Your task to perform on an android device: Open my contact list Image 0: 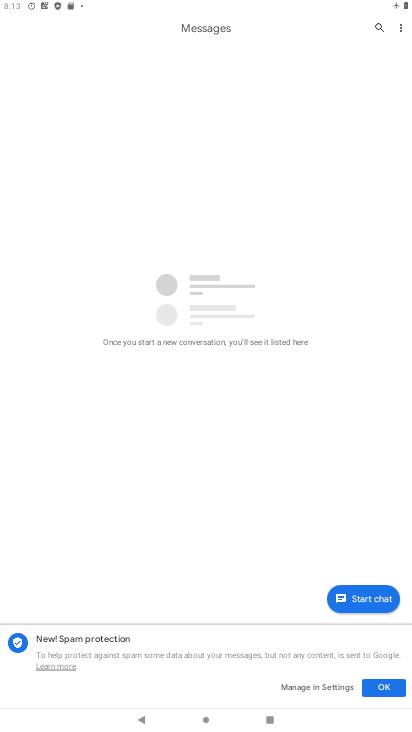
Step 0: click (275, 647)
Your task to perform on an android device: Open my contact list Image 1: 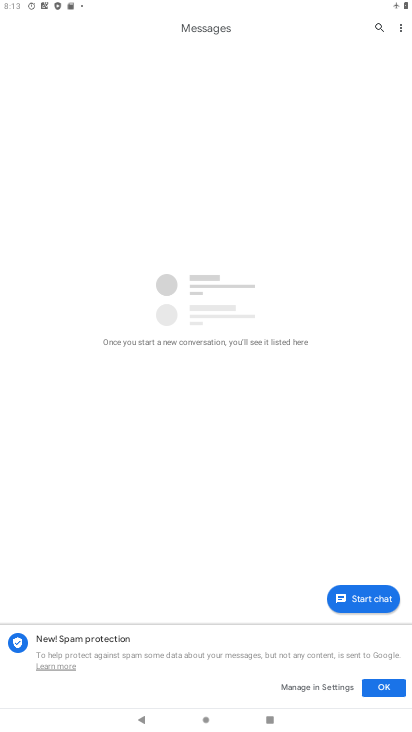
Step 1: press home button
Your task to perform on an android device: Open my contact list Image 2: 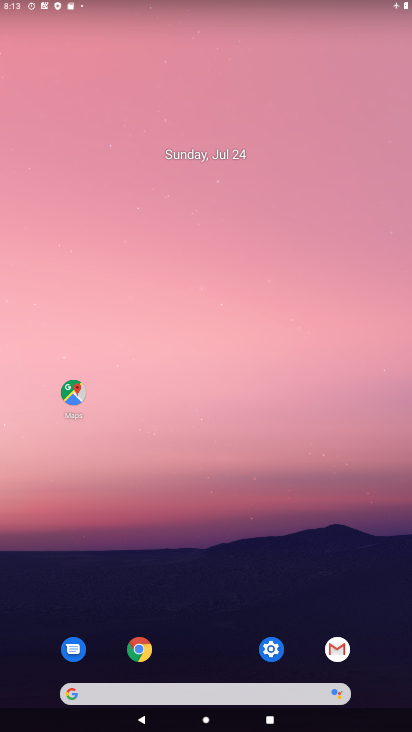
Step 2: drag from (312, 698) to (173, 190)
Your task to perform on an android device: Open my contact list Image 3: 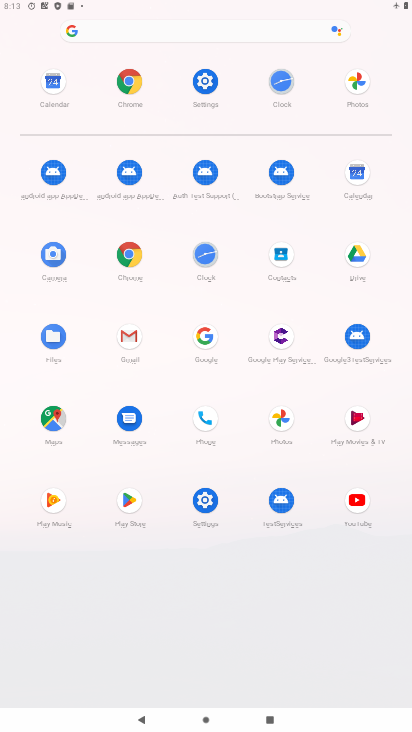
Step 3: click (202, 437)
Your task to perform on an android device: Open my contact list Image 4: 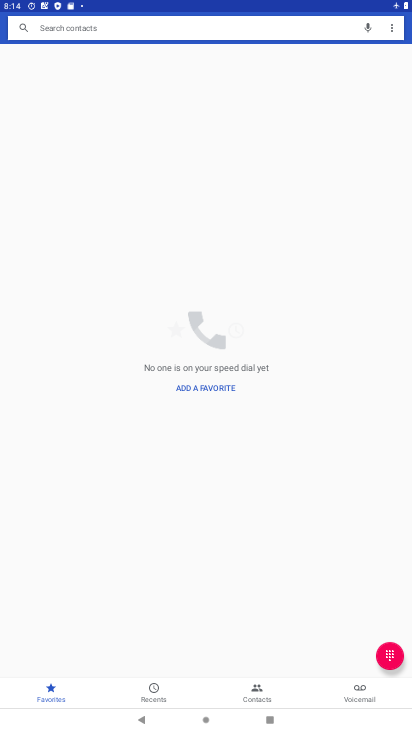
Step 4: click (257, 702)
Your task to perform on an android device: Open my contact list Image 5: 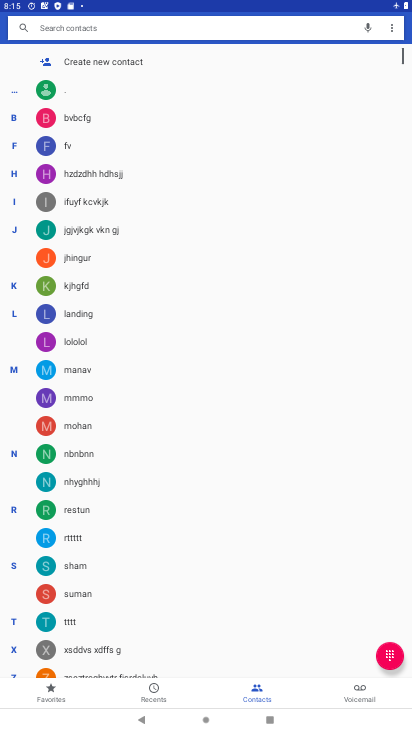
Step 5: task complete